Your task to perform on an android device: Go to battery settings Image 0: 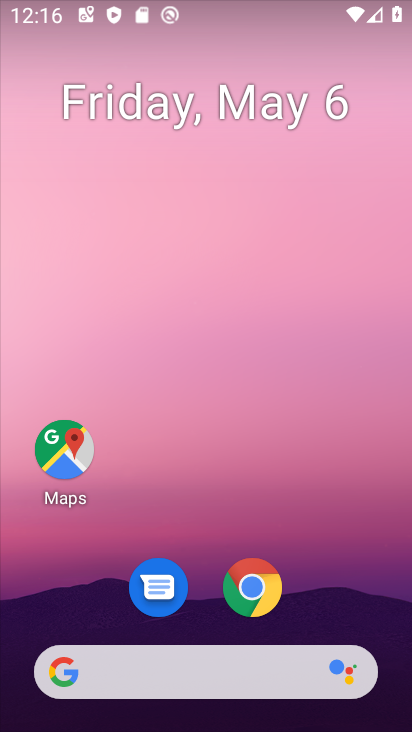
Step 0: drag from (207, 555) to (272, 75)
Your task to perform on an android device: Go to battery settings Image 1: 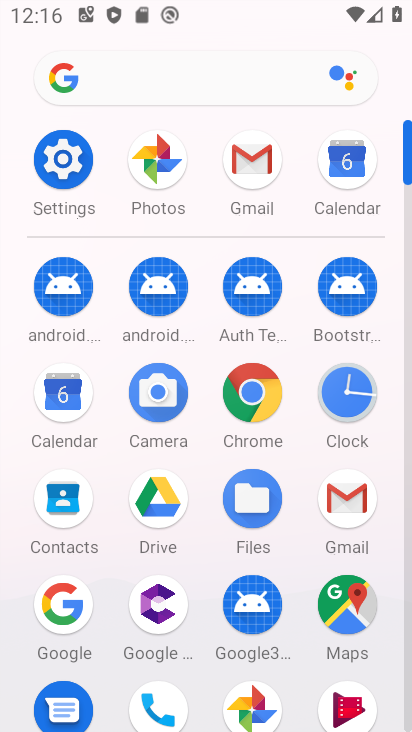
Step 1: click (88, 150)
Your task to perform on an android device: Go to battery settings Image 2: 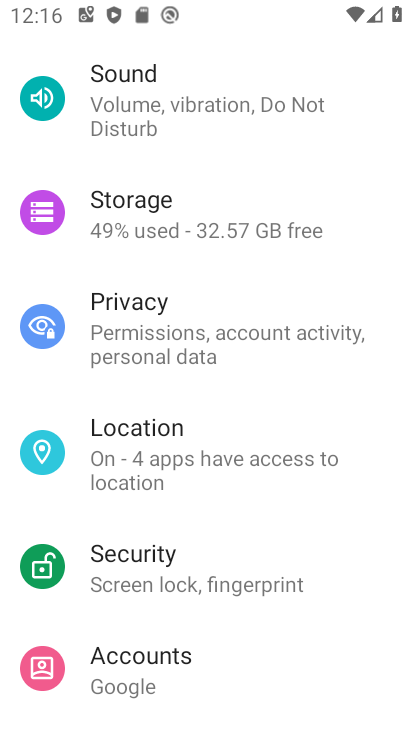
Step 2: drag from (196, 128) to (157, 731)
Your task to perform on an android device: Go to battery settings Image 3: 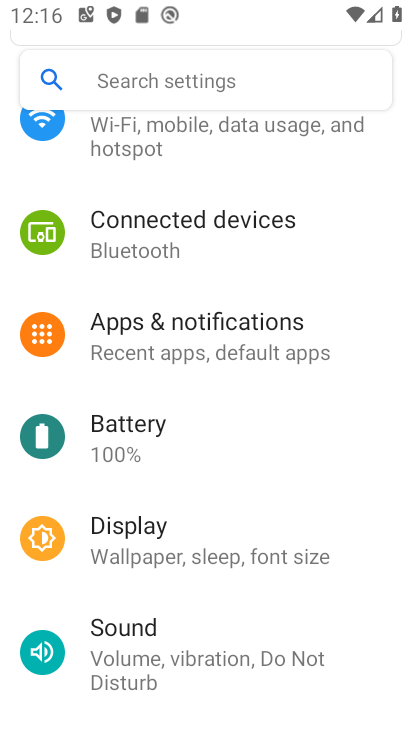
Step 3: click (134, 428)
Your task to perform on an android device: Go to battery settings Image 4: 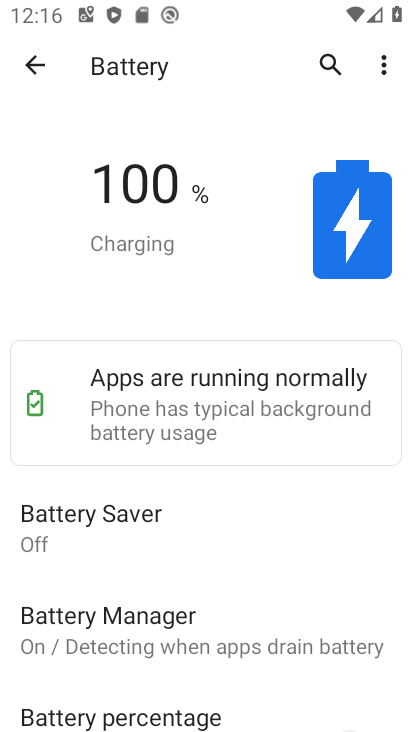
Step 4: task complete